Your task to perform on an android device: Go to Yahoo.com Image 0: 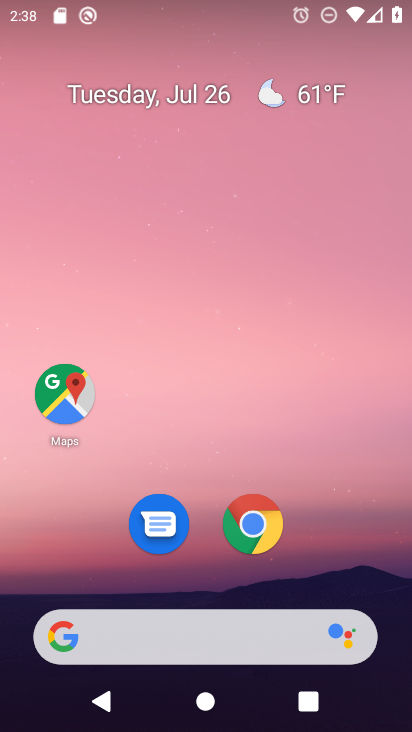
Step 0: press home button
Your task to perform on an android device: Go to Yahoo.com Image 1: 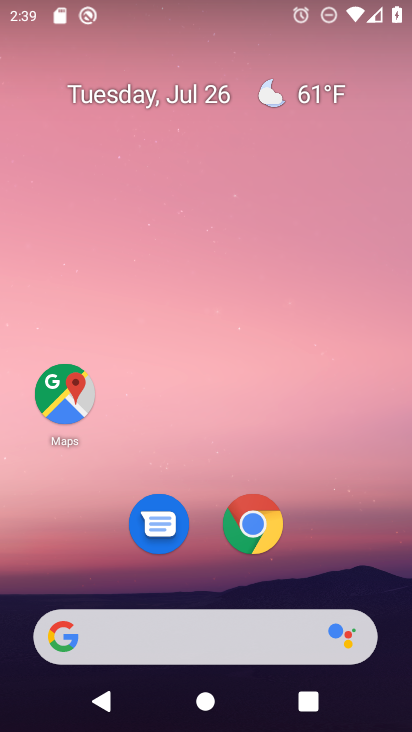
Step 1: drag from (153, 637) to (298, 23)
Your task to perform on an android device: Go to Yahoo.com Image 2: 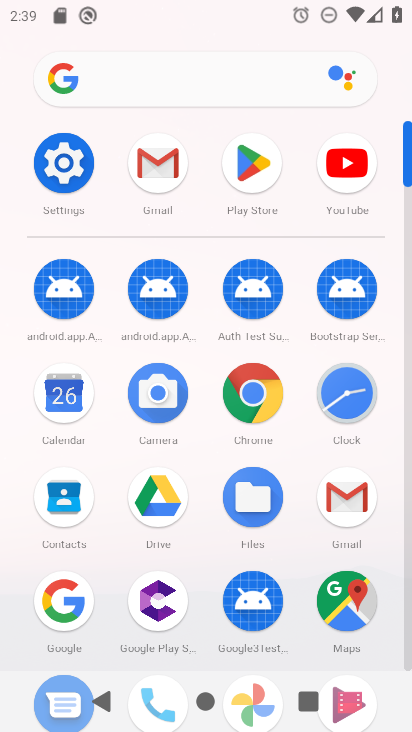
Step 2: click (263, 409)
Your task to perform on an android device: Go to Yahoo.com Image 3: 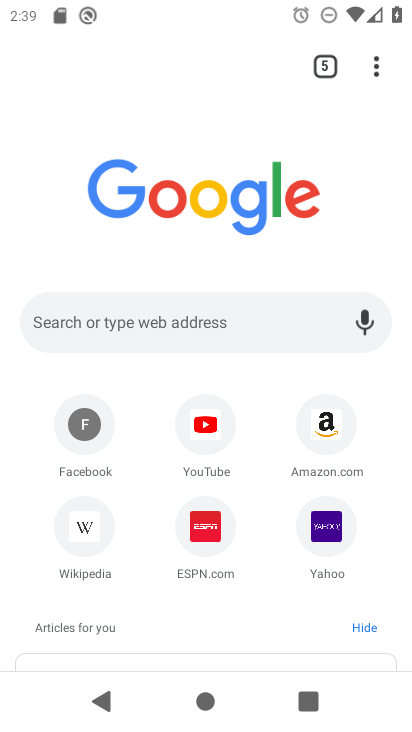
Step 3: click (333, 539)
Your task to perform on an android device: Go to Yahoo.com Image 4: 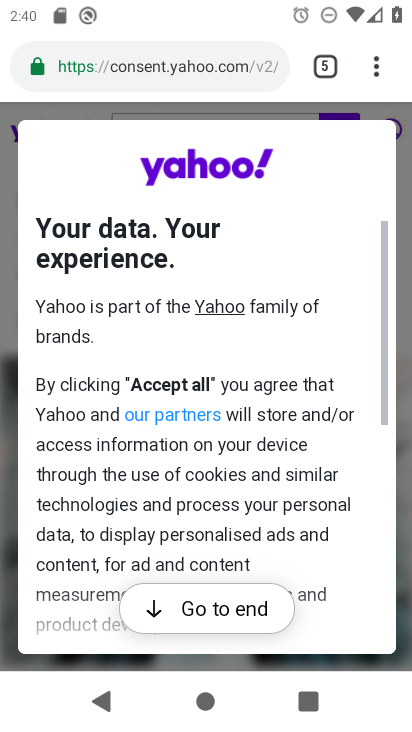
Step 4: click (222, 602)
Your task to perform on an android device: Go to Yahoo.com Image 5: 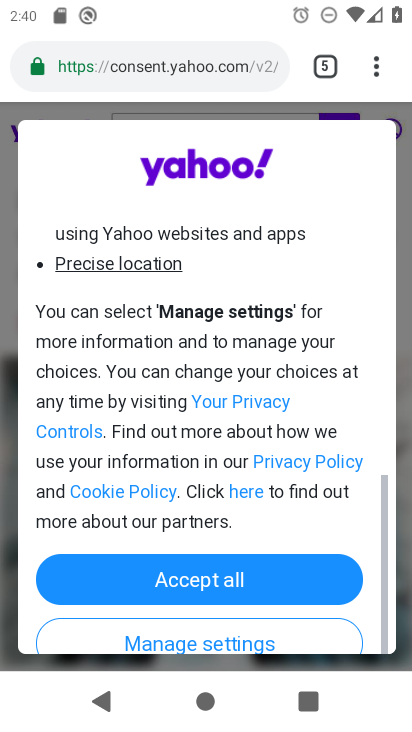
Step 5: click (191, 576)
Your task to perform on an android device: Go to Yahoo.com Image 6: 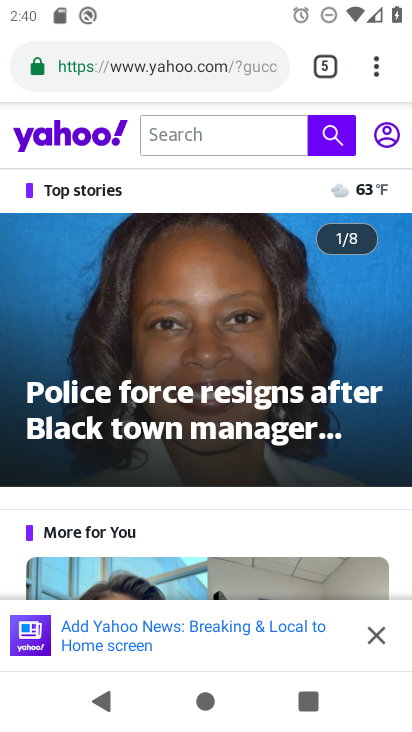
Step 6: task complete